Your task to perform on an android device: Open eBay Image 0: 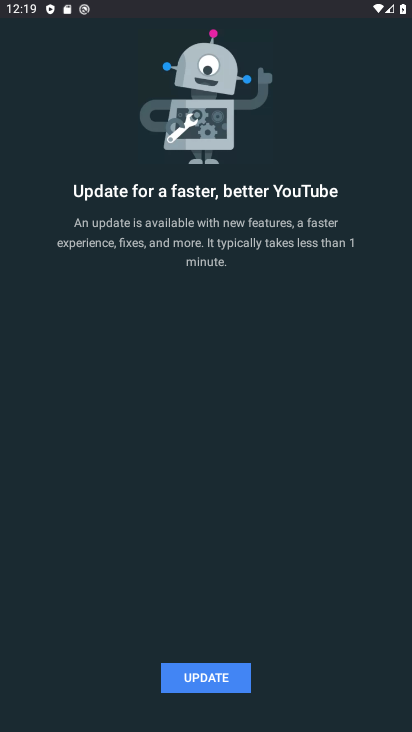
Step 0: press home button
Your task to perform on an android device: Open eBay Image 1: 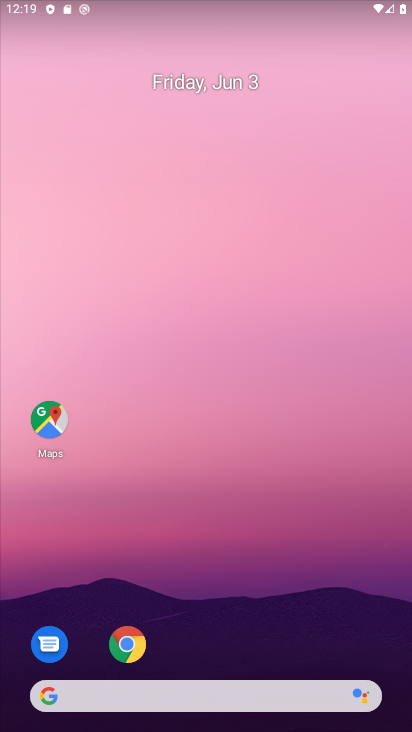
Step 1: click (125, 641)
Your task to perform on an android device: Open eBay Image 2: 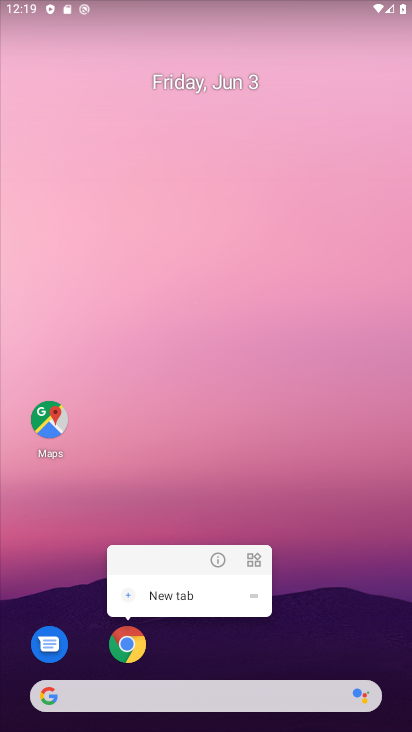
Step 2: click (122, 648)
Your task to perform on an android device: Open eBay Image 3: 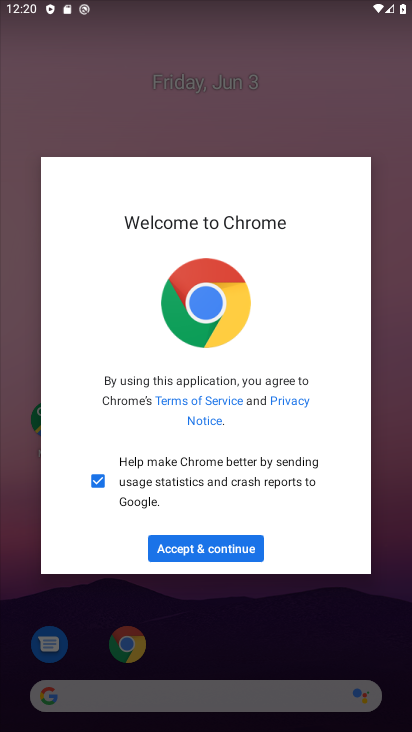
Step 3: click (214, 546)
Your task to perform on an android device: Open eBay Image 4: 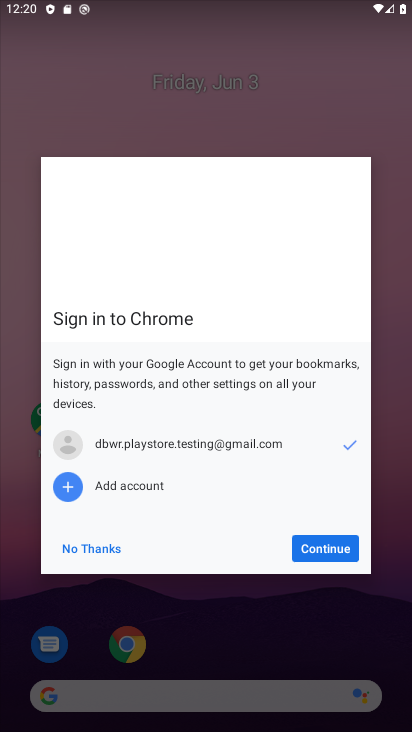
Step 4: click (346, 543)
Your task to perform on an android device: Open eBay Image 5: 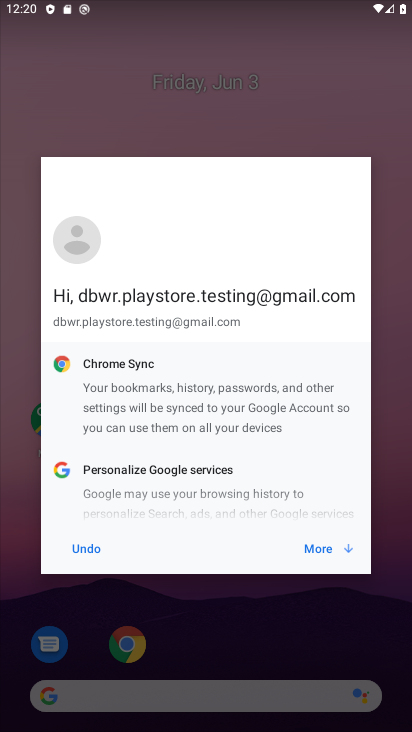
Step 5: click (327, 546)
Your task to perform on an android device: Open eBay Image 6: 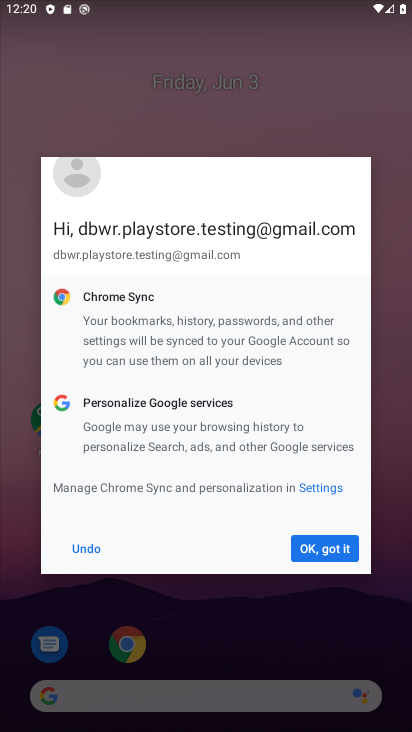
Step 6: click (327, 546)
Your task to perform on an android device: Open eBay Image 7: 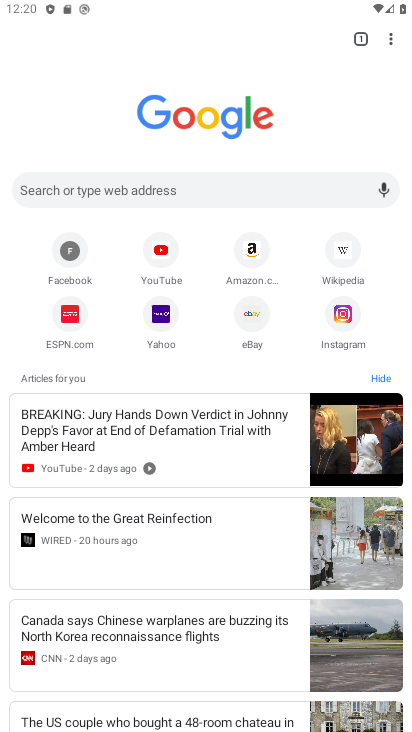
Step 7: click (254, 326)
Your task to perform on an android device: Open eBay Image 8: 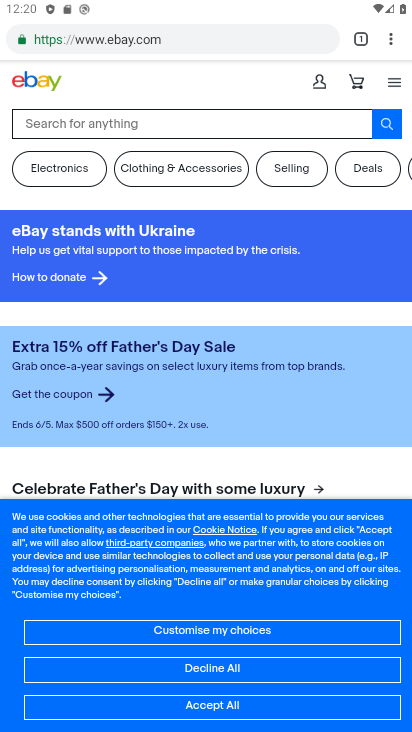
Step 8: task complete